Your task to perform on an android device: Open calendar and show me the second week of next month Image 0: 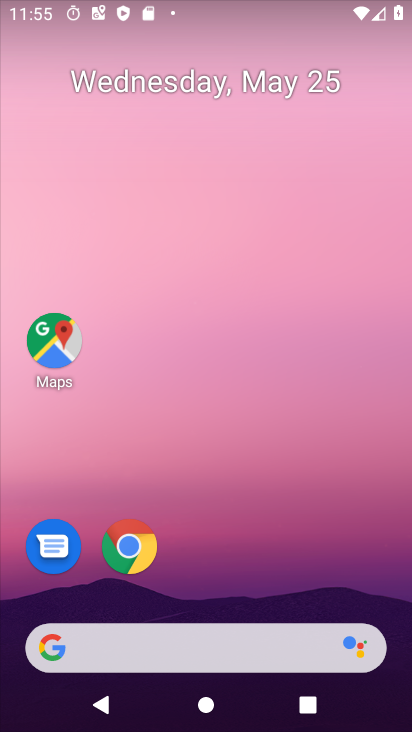
Step 0: drag from (291, 594) to (313, 42)
Your task to perform on an android device: Open calendar and show me the second week of next month Image 1: 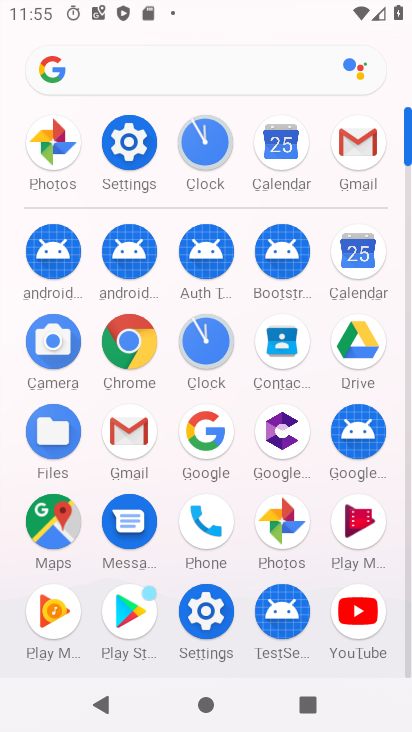
Step 1: click (349, 270)
Your task to perform on an android device: Open calendar and show me the second week of next month Image 2: 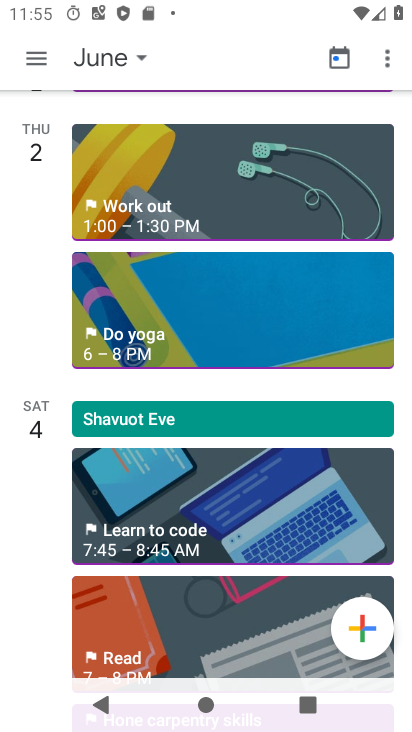
Step 2: click (137, 58)
Your task to perform on an android device: Open calendar and show me the second week of next month Image 3: 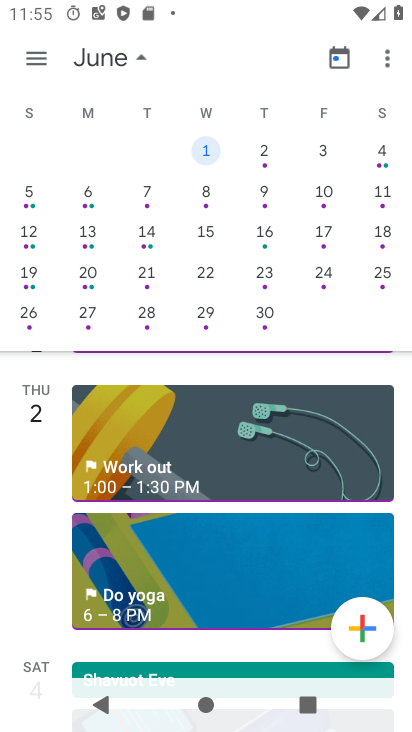
Step 3: click (396, 296)
Your task to perform on an android device: Open calendar and show me the second week of next month Image 4: 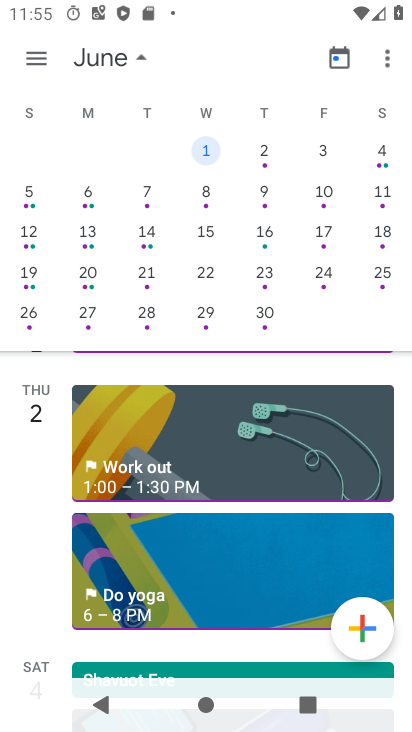
Step 4: click (37, 201)
Your task to perform on an android device: Open calendar and show me the second week of next month Image 5: 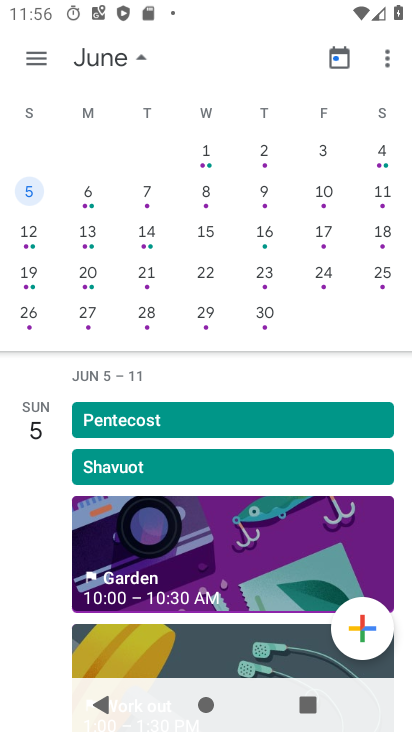
Step 5: task complete